Your task to perform on an android device: turn off javascript in the chrome app Image 0: 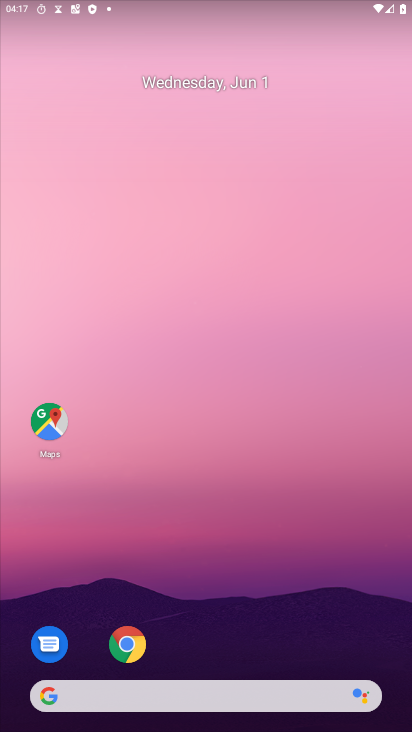
Step 0: press home button
Your task to perform on an android device: turn off javascript in the chrome app Image 1: 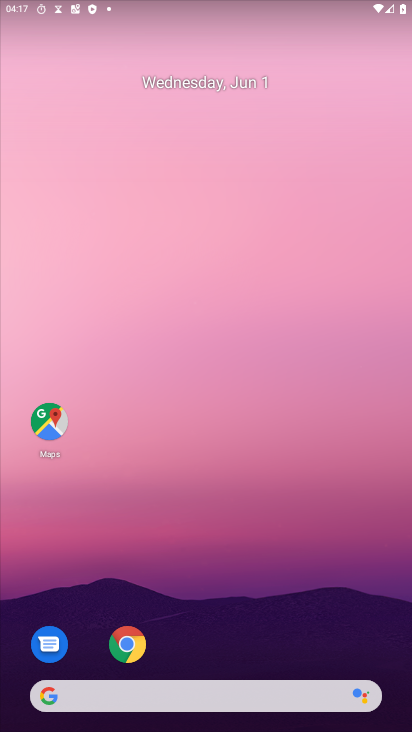
Step 1: click (128, 654)
Your task to perform on an android device: turn off javascript in the chrome app Image 2: 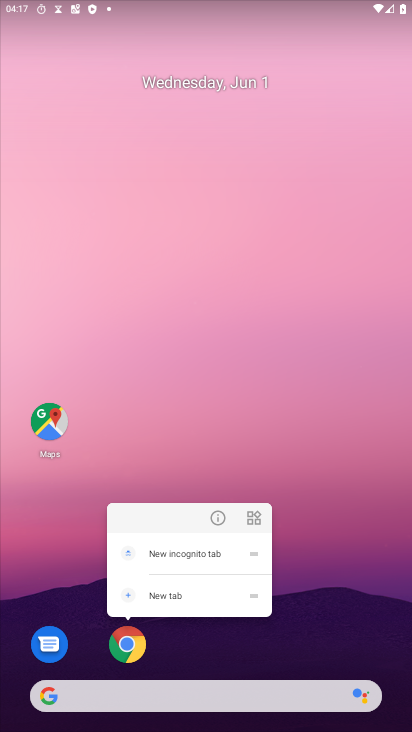
Step 2: click (128, 654)
Your task to perform on an android device: turn off javascript in the chrome app Image 3: 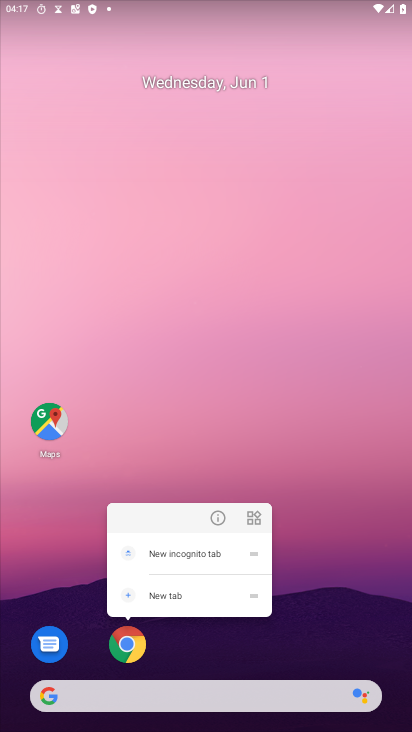
Step 3: click (128, 654)
Your task to perform on an android device: turn off javascript in the chrome app Image 4: 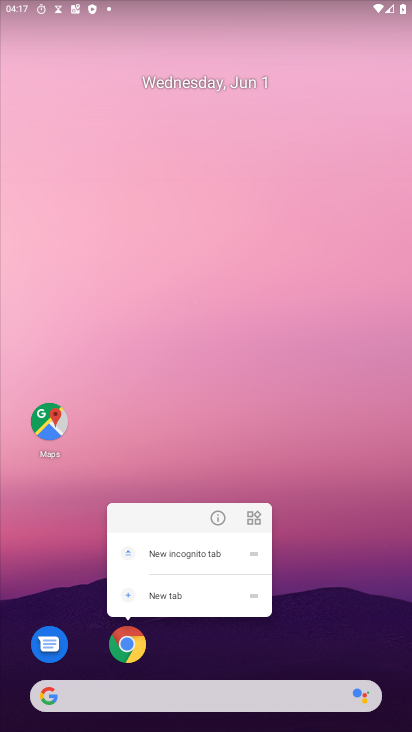
Step 4: click (299, 634)
Your task to perform on an android device: turn off javascript in the chrome app Image 5: 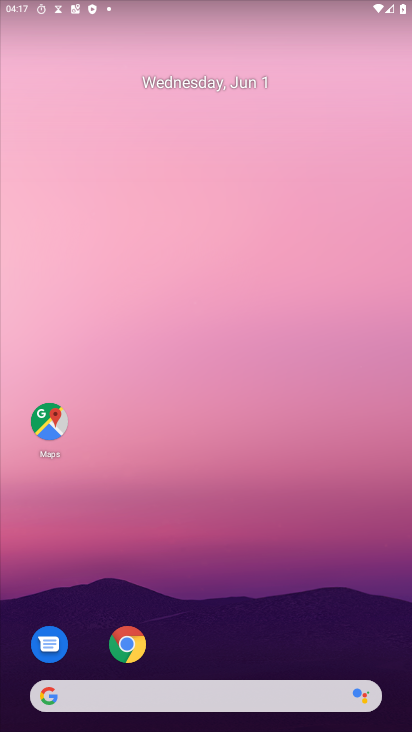
Step 5: click (135, 650)
Your task to perform on an android device: turn off javascript in the chrome app Image 6: 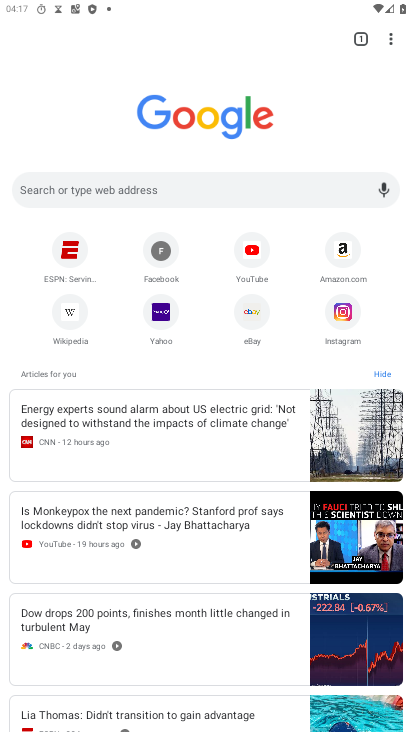
Step 6: drag from (391, 43) to (238, 327)
Your task to perform on an android device: turn off javascript in the chrome app Image 7: 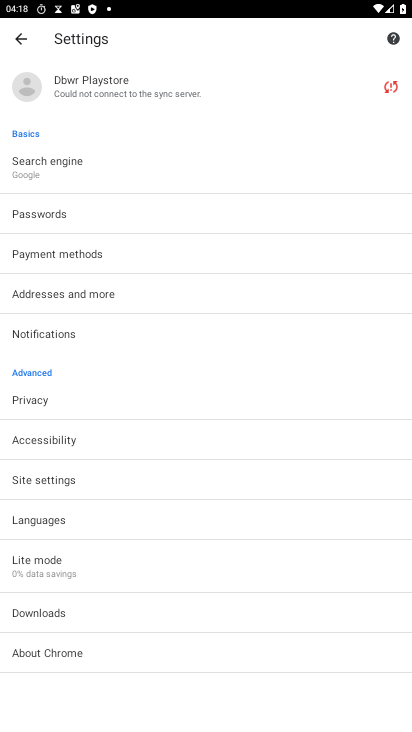
Step 7: click (34, 477)
Your task to perform on an android device: turn off javascript in the chrome app Image 8: 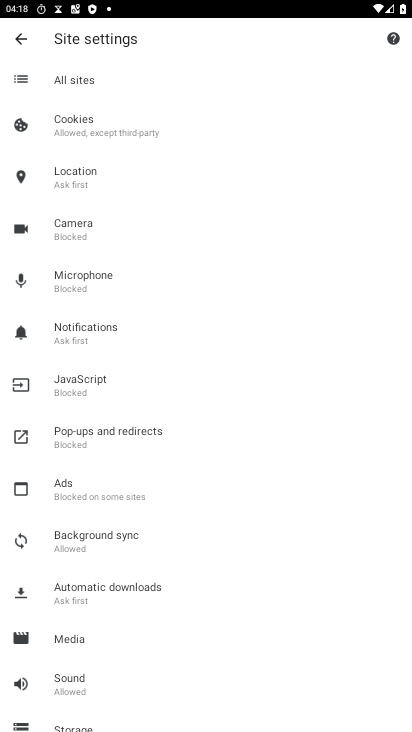
Step 8: click (76, 383)
Your task to perform on an android device: turn off javascript in the chrome app Image 9: 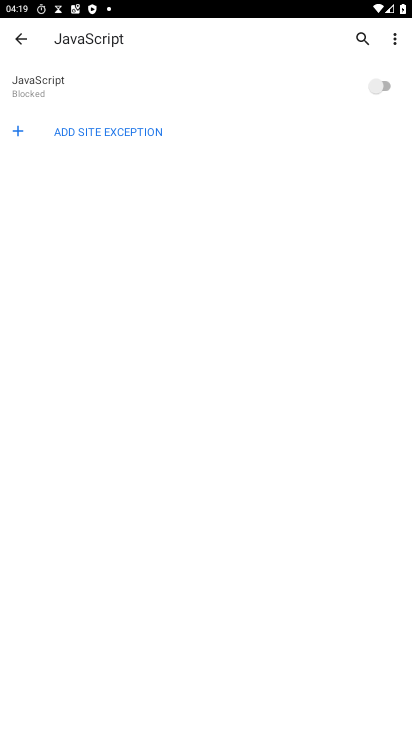
Step 9: task complete